Your task to perform on an android device: Search for Mexican restaurants on Maps Image 0: 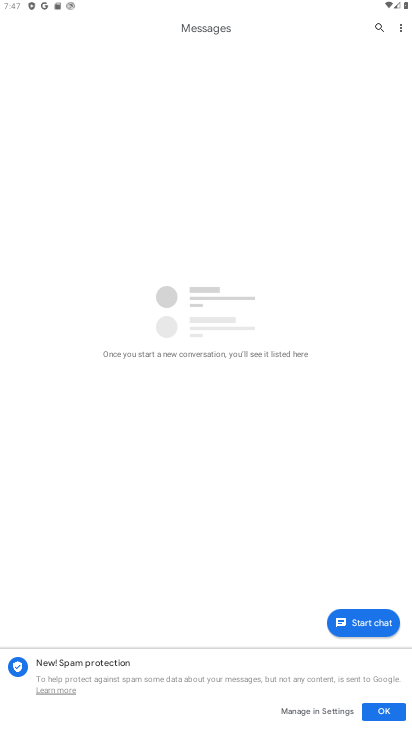
Step 0: press home button
Your task to perform on an android device: Search for Mexican restaurants on Maps Image 1: 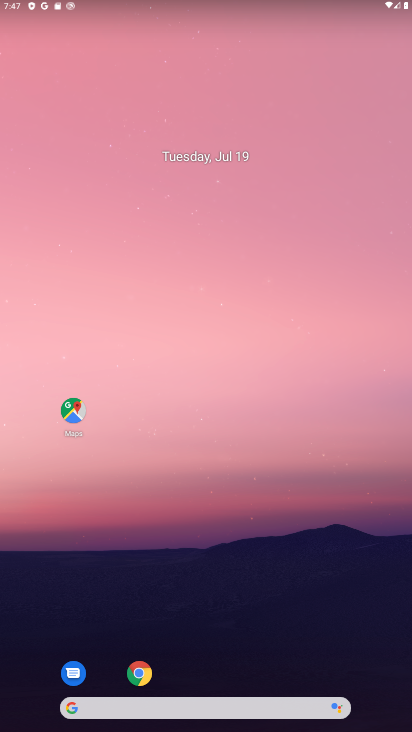
Step 1: click (70, 416)
Your task to perform on an android device: Search for Mexican restaurants on Maps Image 2: 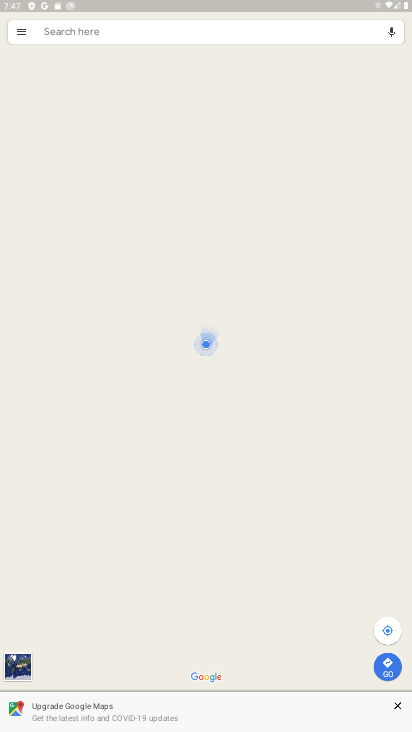
Step 2: click (184, 29)
Your task to perform on an android device: Search for Mexican restaurants on Maps Image 3: 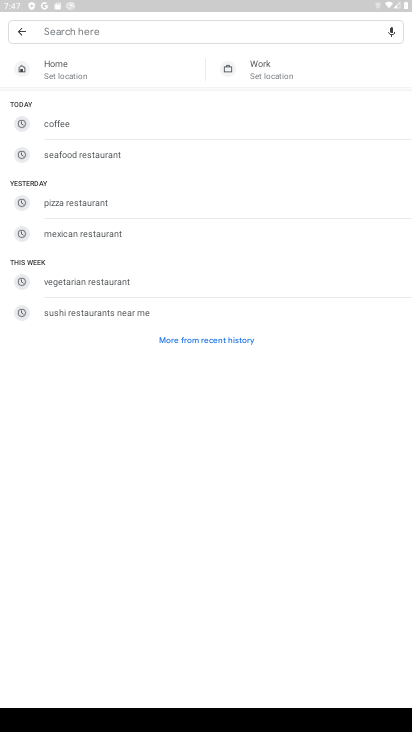
Step 3: type "mexican"
Your task to perform on an android device: Search for Mexican restaurants on Maps Image 4: 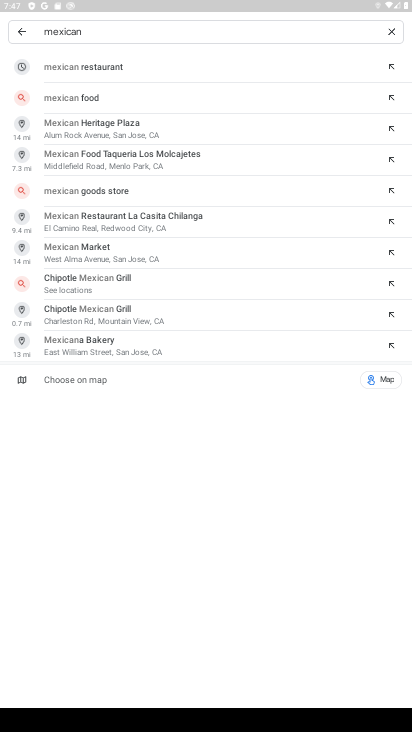
Step 4: click (177, 79)
Your task to perform on an android device: Search for Mexican restaurants on Maps Image 5: 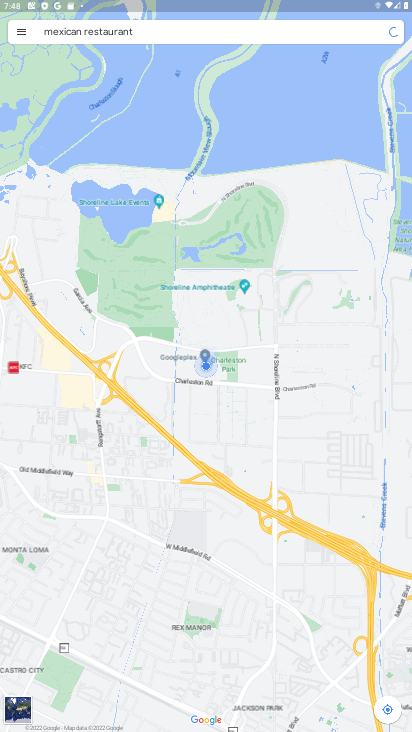
Step 5: task complete